Your task to perform on an android device: turn off wifi Image 0: 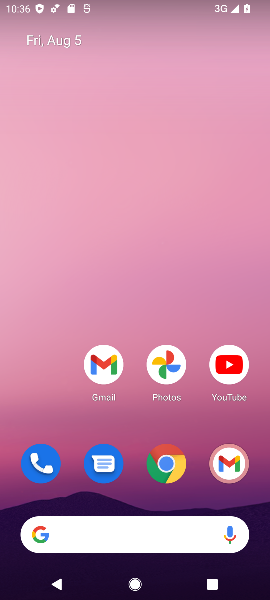
Step 0: drag from (151, 518) to (163, 161)
Your task to perform on an android device: turn off wifi Image 1: 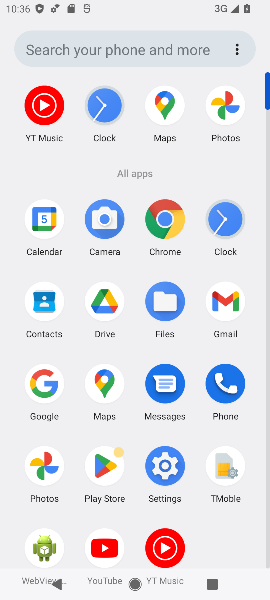
Step 1: click (161, 485)
Your task to perform on an android device: turn off wifi Image 2: 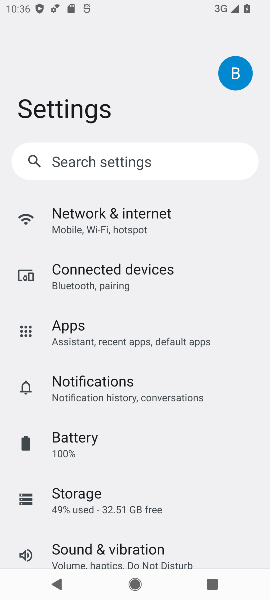
Step 2: click (129, 227)
Your task to perform on an android device: turn off wifi Image 3: 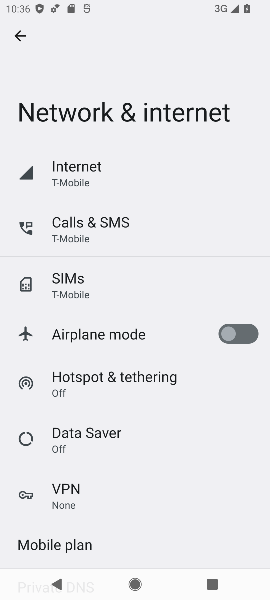
Step 3: click (112, 174)
Your task to perform on an android device: turn off wifi Image 4: 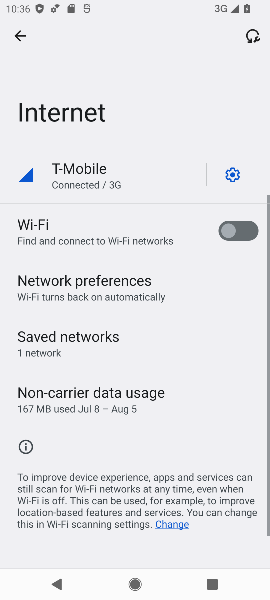
Step 4: click (90, 236)
Your task to perform on an android device: turn off wifi Image 5: 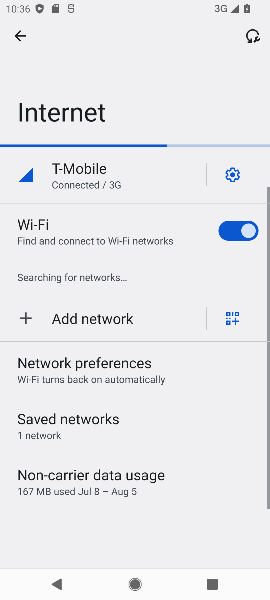
Step 5: click (228, 227)
Your task to perform on an android device: turn off wifi Image 6: 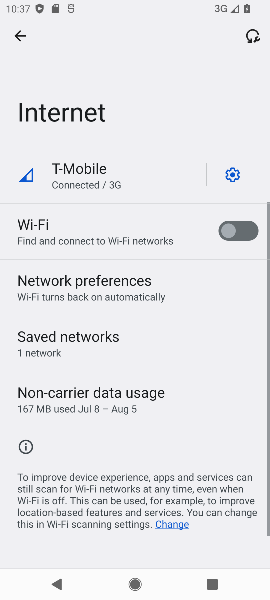
Step 6: task complete